Your task to perform on an android device: Go to Yahoo.com Image 0: 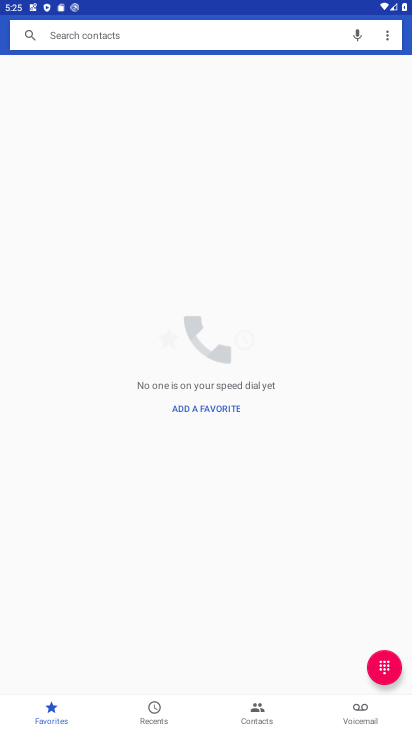
Step 0: press home button
Your task to perform on an android device: Go to Yahoo.com Image 1: 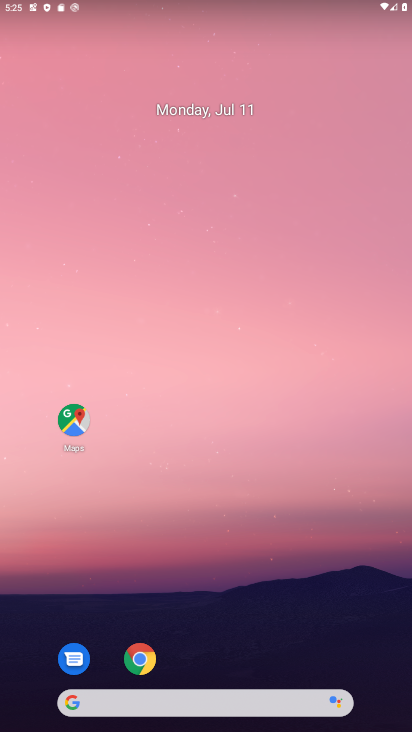
Step 1: click (142, 663)
Your task to perform on an android device: Go to Yahoo.com Image 2: 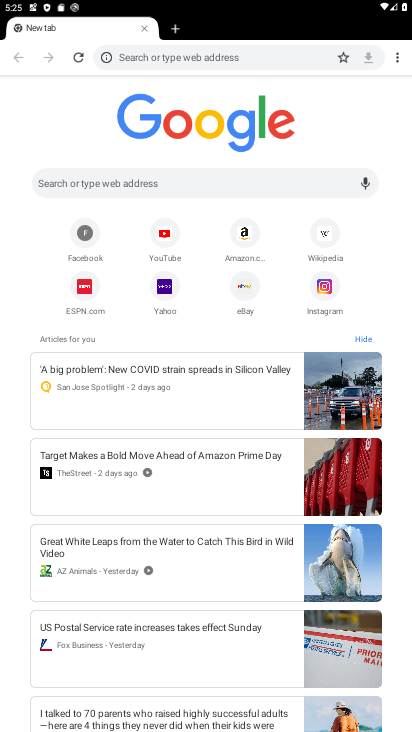
Step 2: click (132, 181)
Your task to perform on an android device: Go to Yahoo.com Image 3: 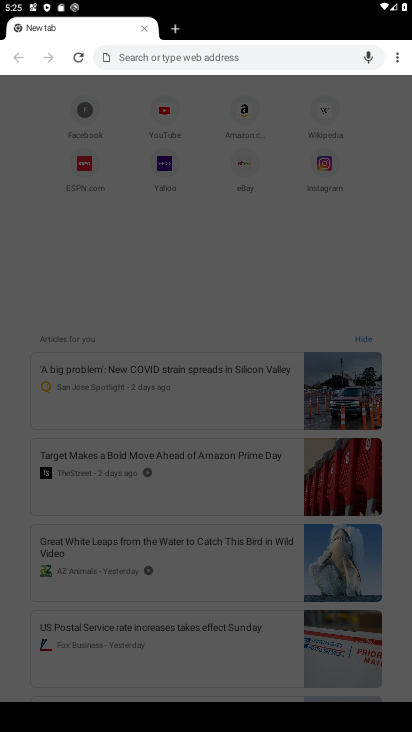
Step 3: type "Yahoo.com"
Your task to perform on an android device: Go to Yahoo.com Image 4: 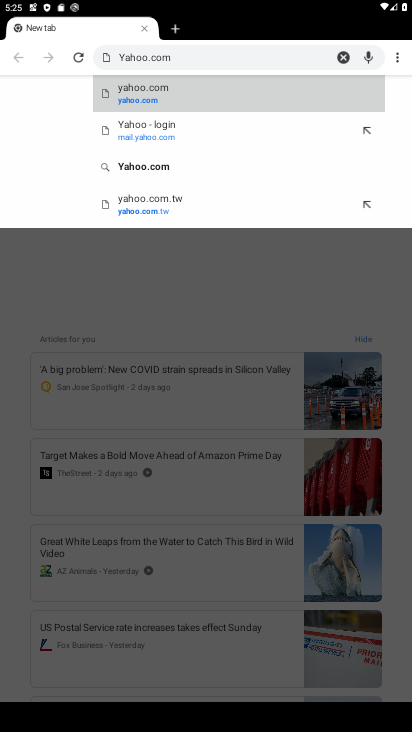
Step 4: click (143, 90)
Your task to perform on an android device: Go to Yahoo.com Image 5: 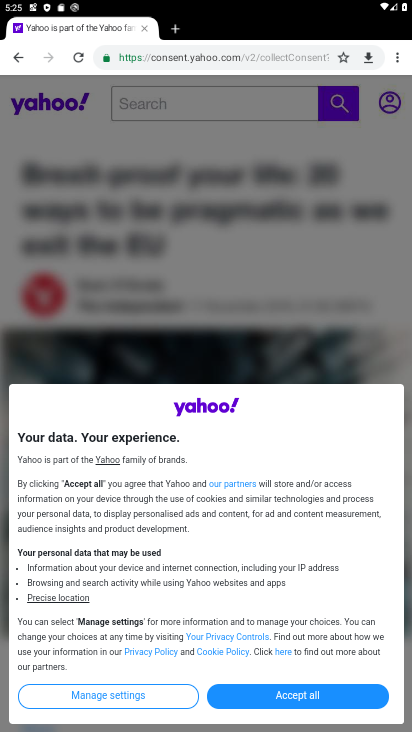
Step 5: click (297, 694)
Your task to perform on an android device: Go to Yahoo.com Image 6: 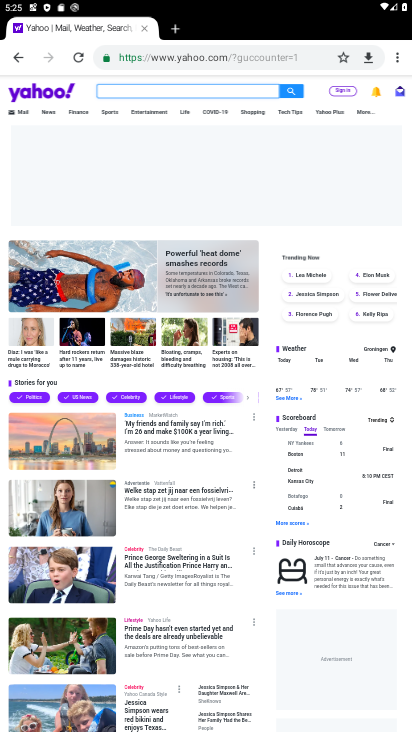
Step 6: task complete